Your task to perform on an android device: turn off javascript in the chrome app Image 0: 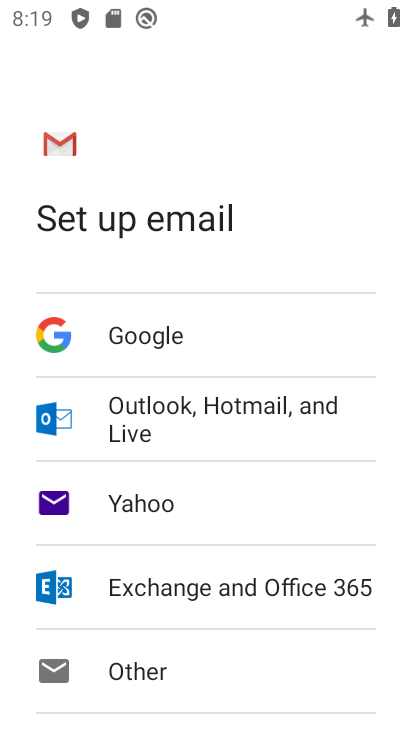
Step 0: press home button
Your task to perform on an android device: turn off javascript in the chrome app Image 1: 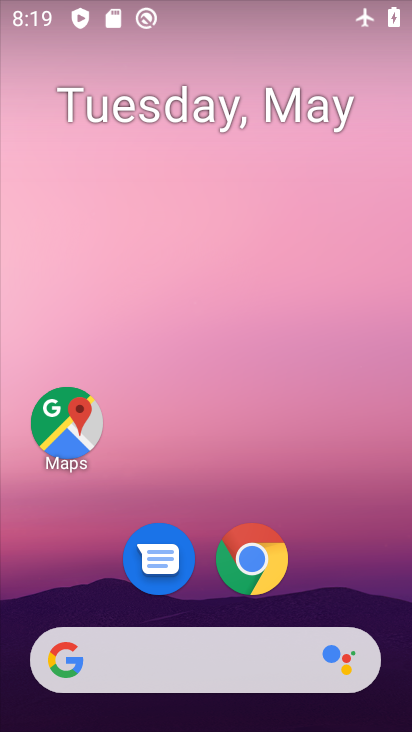
Step 1: click (254, 551)
Your task to perform on an android device: turn off javascript in the chrome app Image 2: 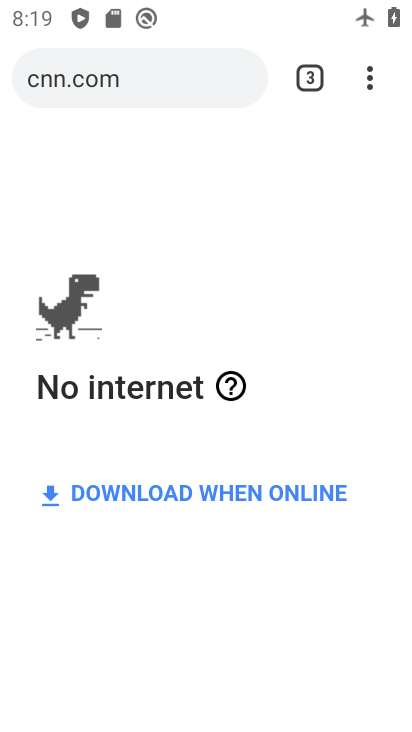
Step 2: drag from (366, 72) to (122, 620)
Your task to perform on an android device: turn off javascript in the chrome app Image 3: 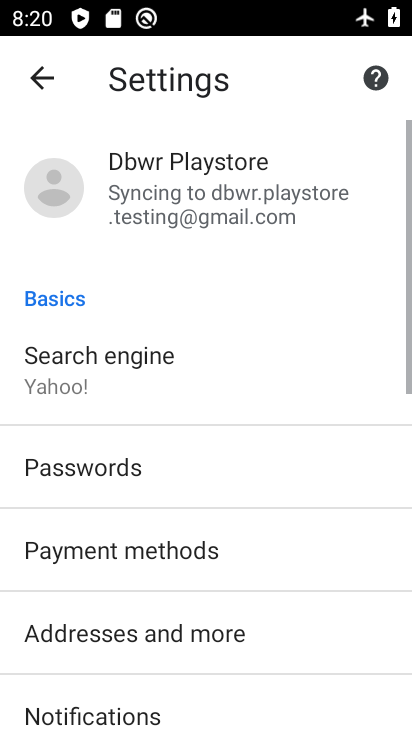
Step 3: drag from (217, 632) to (240, 379)
Your task to perform on an android device: turn off javascript in the chrome app Image 4: 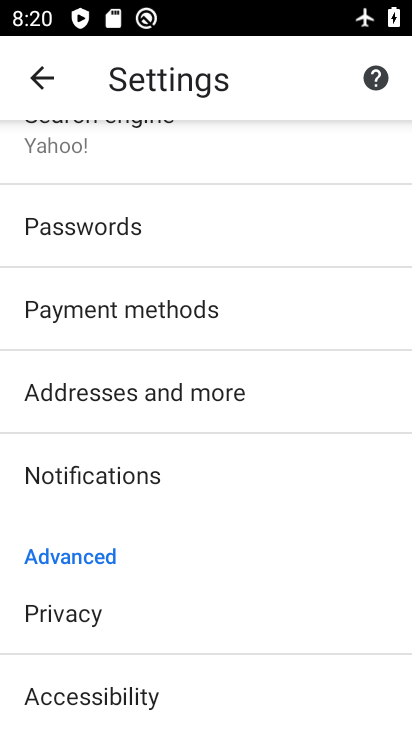
Step 4: drag from (253, 598) to (240, 440)
Your task to perform on an android device: turn off javascript in the chrome app Image 5: 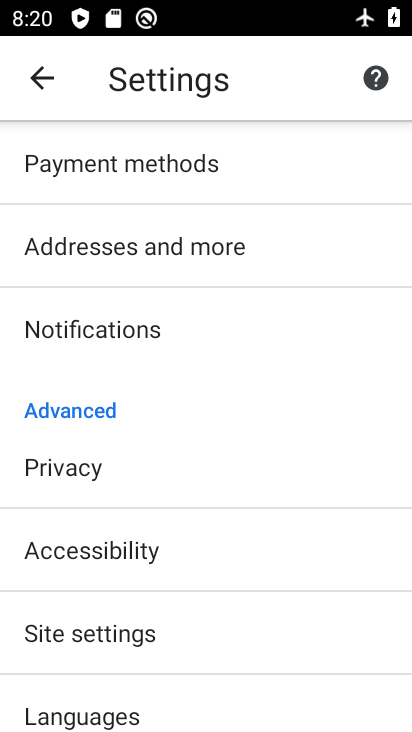
Step 5: click (216, 618)
Your task to perform on an android device: turn off javascript in the chrome app Image 6: 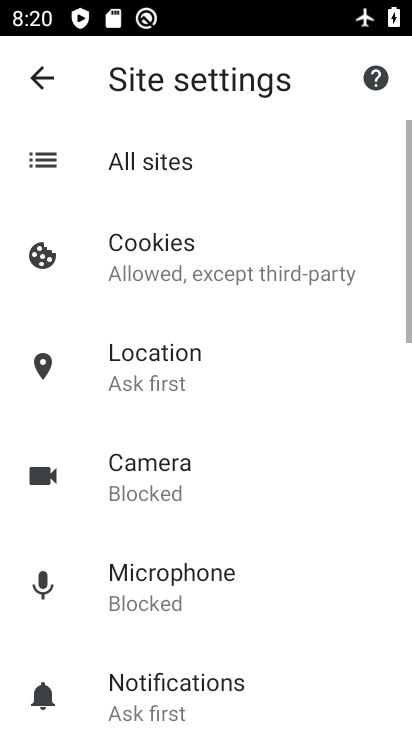
Step 6: drag from (240, 613) to (240, 403)
Your task to perform on an android device: turn off javascript in the chrome app Image 7: 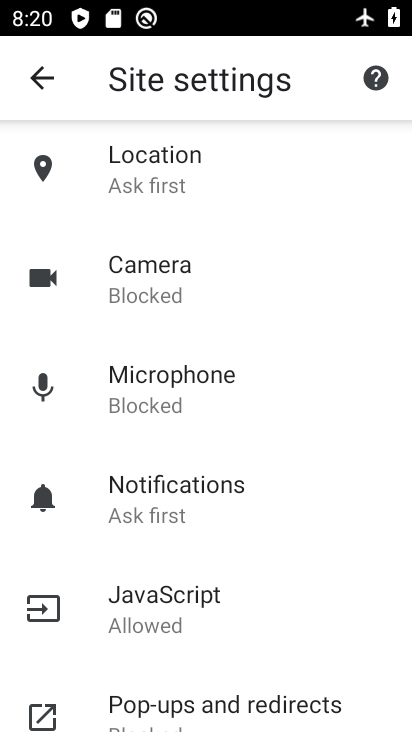
Step 7: click (215, 613)
Your task to perform on an android device: turn off javascript in the chrome app Image 8: 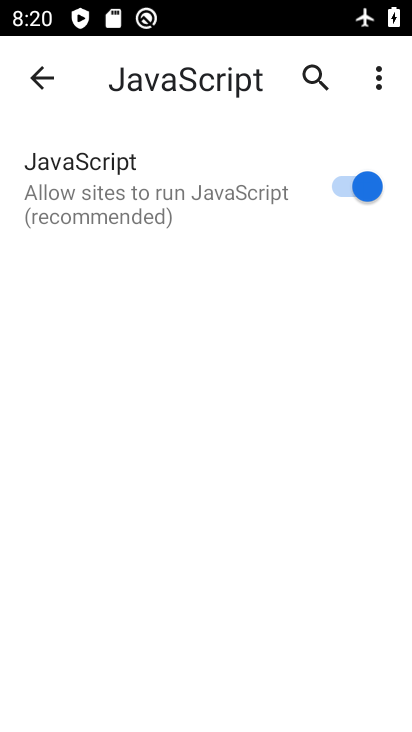
Step 8: click (333, 186)
Your task to perform on an android device: turn off javascript in the chrome app Image 9: 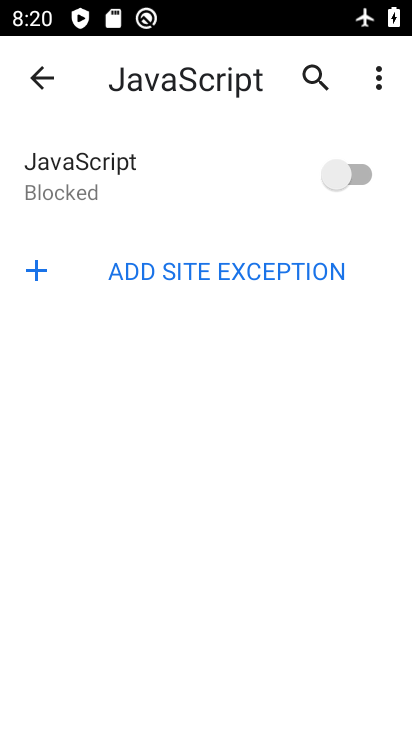
Step 9: task complete